Your task to perform on an android device: turn off wifi Image 0: 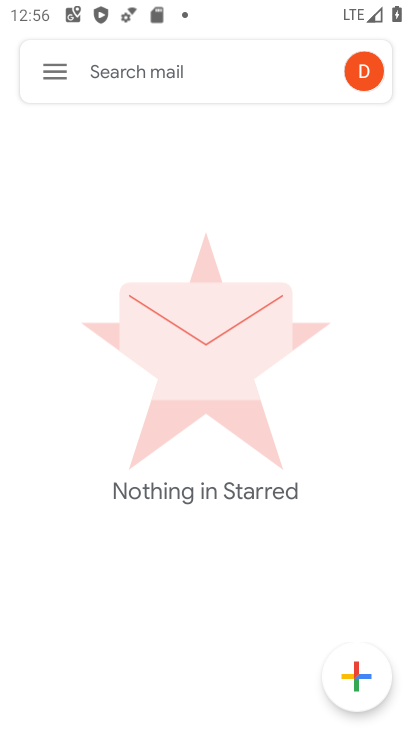
Step 0: press home button
Your task to perform on an android device: turn off wifi Image 1: 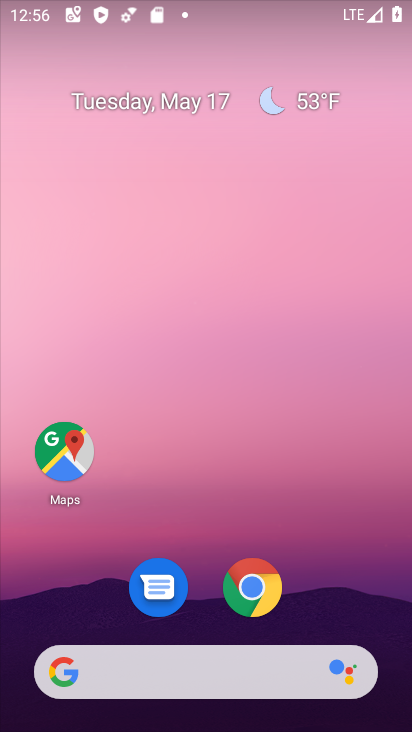
Step 1: drag from (167, 614) to (110, 98)
Your task to perform on an android device: turn off wifi Image 2: 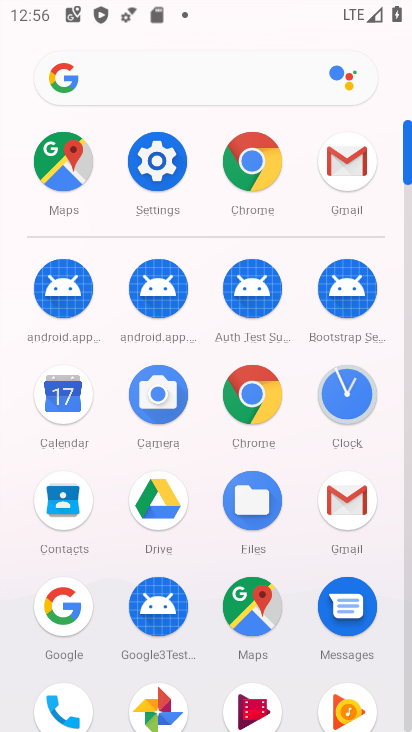
Step 2: click (153, 174)
Your task to perform on an android device: turn off wifi Image 3: 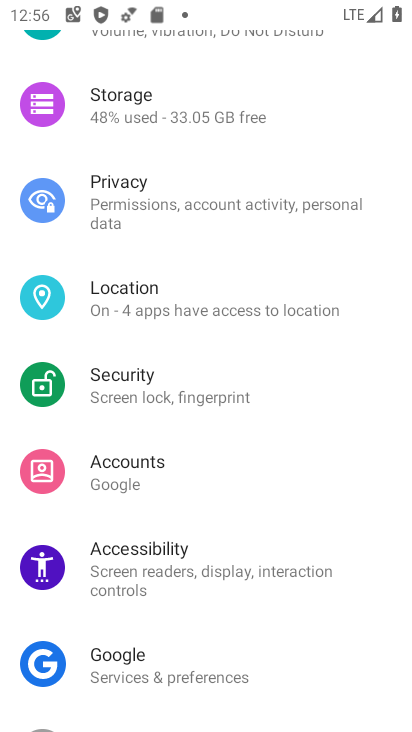
Step 3: drag from (153, 176) to (208, 585)
Your task to perform on an android device: turn off wifi Image 4: 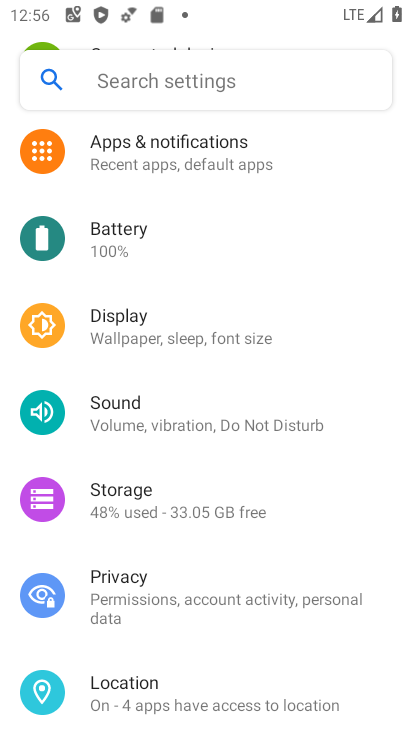
Step 4: drag from (160, 226) to (150, 580)
Your task to perform on an android device: turn off wifi Image 5: 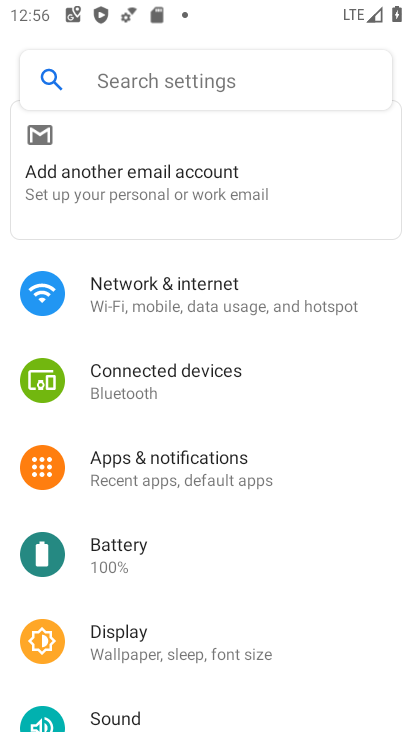
Step 5: click (140, 308)
Your task to perform on an android device: turn off wifi Image 6: 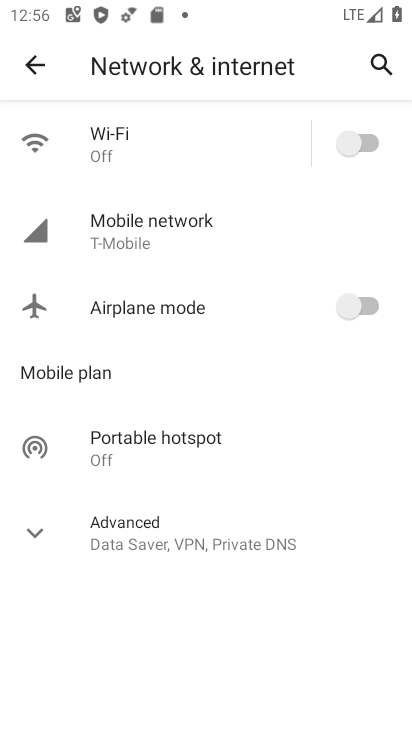
Step 6: click (187, 145)
Your task to perform on an android device: turn off wifi Image 7: 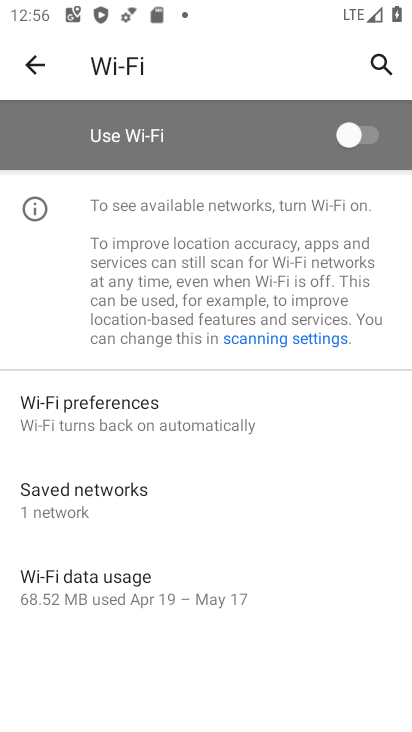
Step 7: task complete